Your task to perform on an android device: check google app version Image 0: 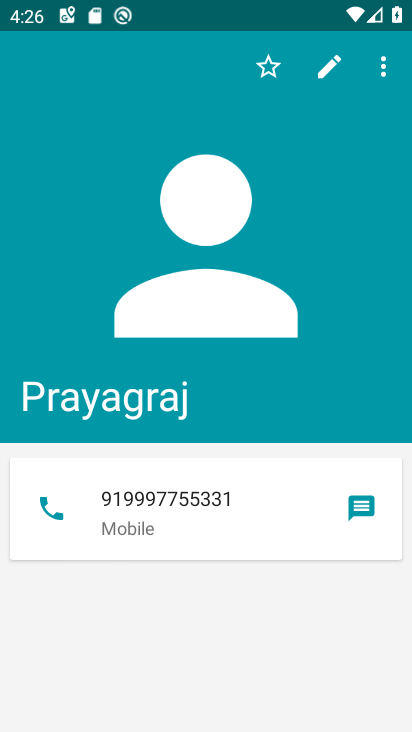
Step 0: press home button
Your task to perform on an android device: check google app version Image 1: 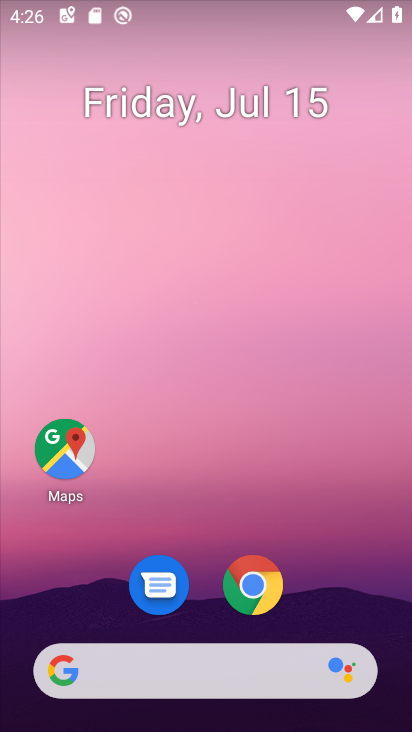
Step 1: click (252, 591)
Your task to perform on an android device: check google app version Image 2: 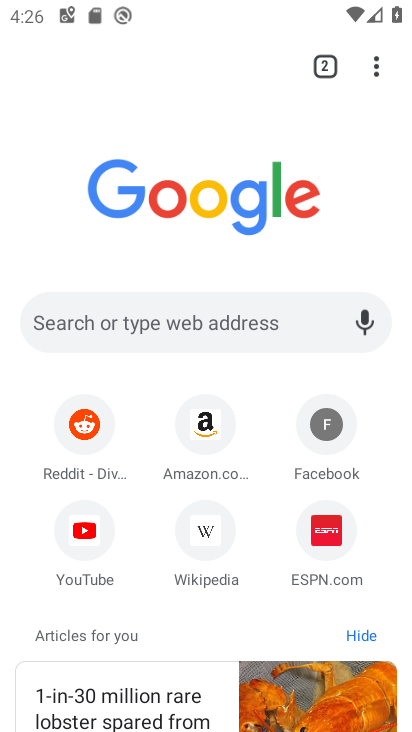
Step 2: click (374, 67)
Your task to perform on an android device: check google app version Image 3: 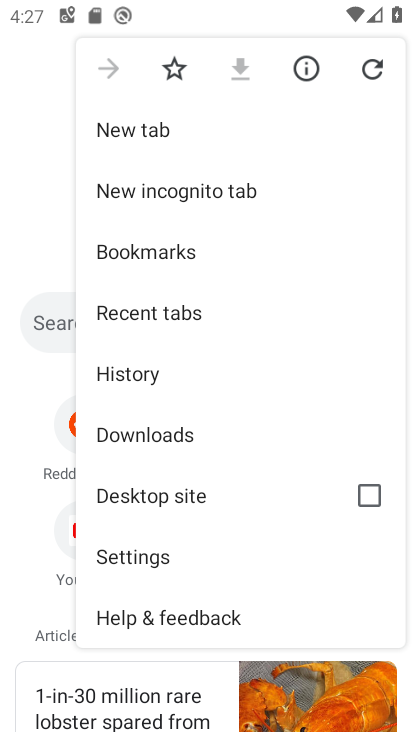
Step 3: press home button
Your task to perform on an android device: check google app version Image 4: 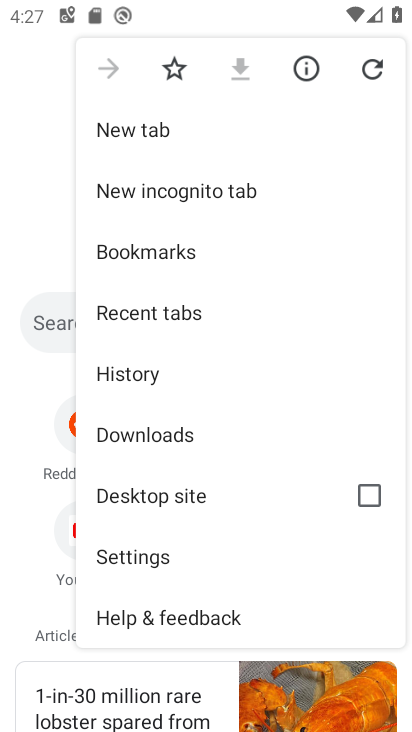
Step 4: press home button
Your task to perform on an android device: check google app version Image 5: 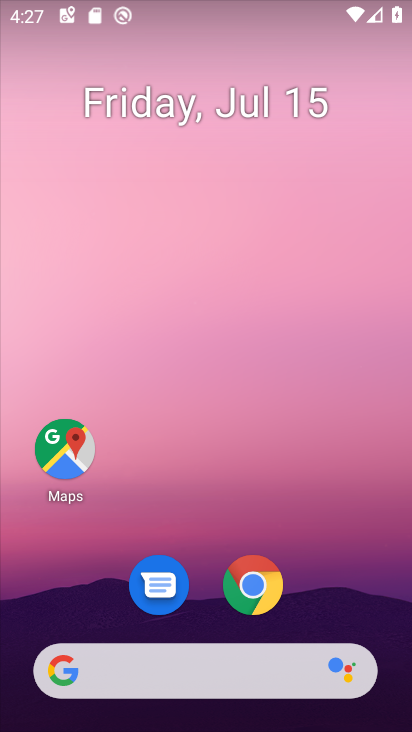
Step 5: click (189, 673)
Your task to perform on an android device: check google app version Image 6: 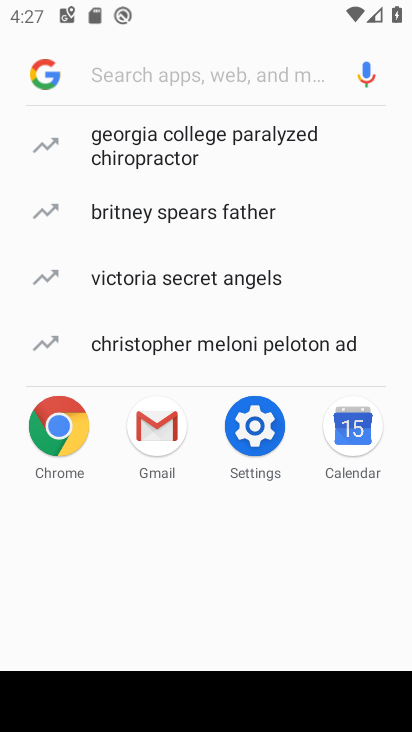
Step 6: click (45, 73)
Your task to perform on an android device: check google app version Image 7: 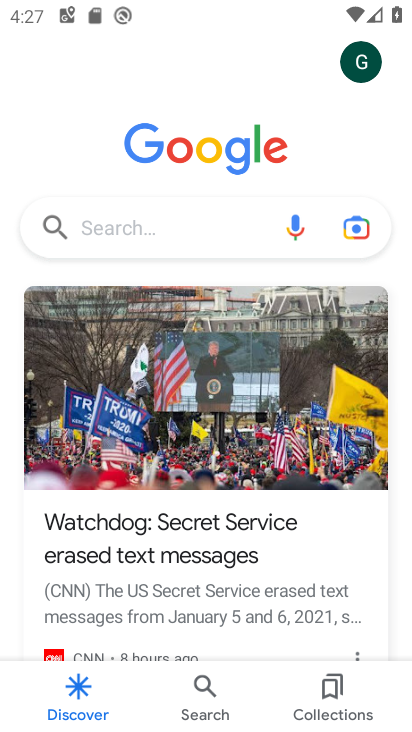
Step 7: click (362, 68)
Your task to perform on an android device: check google app version Image 8: 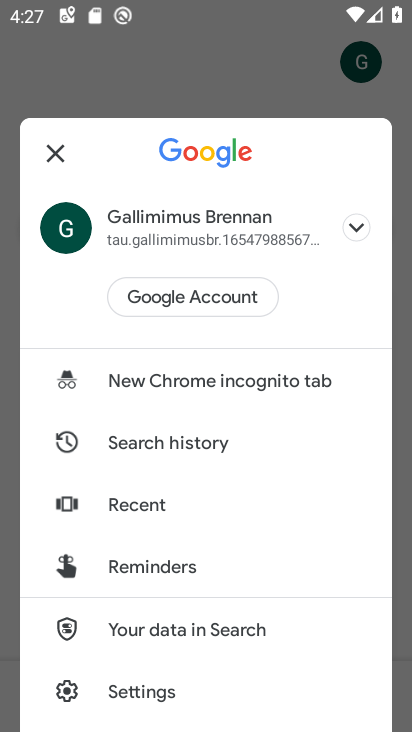
Step 8: click (168, 692)
Your task to perform on an android device: check google app version Image 9: 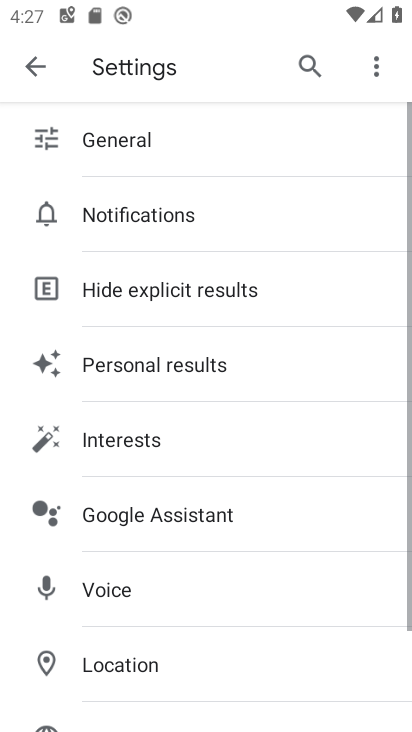
Step 9: drag from (279, 524) to (261, 171)
Your task to perform on an android device: check google app version Image 10: 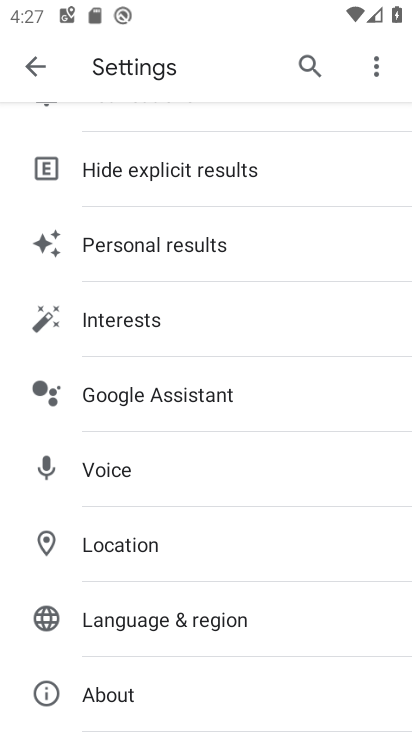
Step 10: click (118, 690)
Your task to perform on an android device: check google app version Image 11: 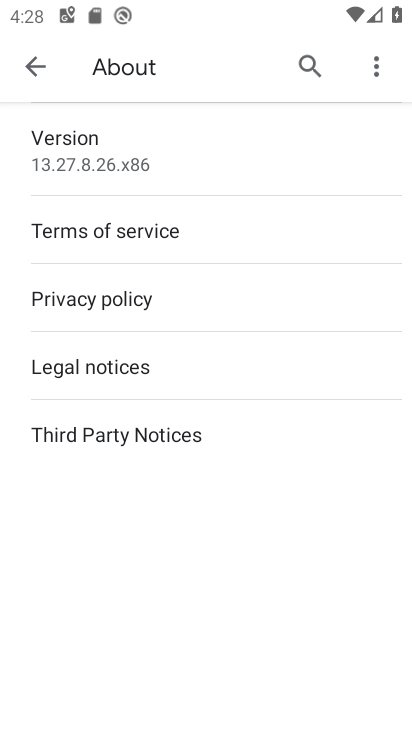
Step 11: task complete